Your task to perform on an android device: Search for Mexican restaurants on Maps Image 0: 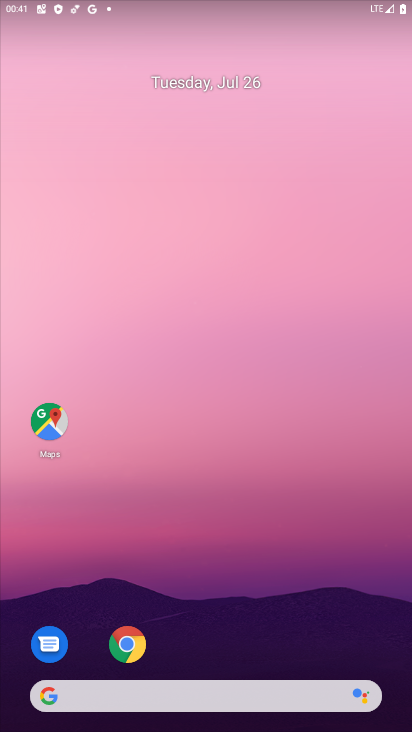
Step 0: click (45, 415)
Your task to perform on an android device: Search for Mexican restaurants on Maps Image 1: 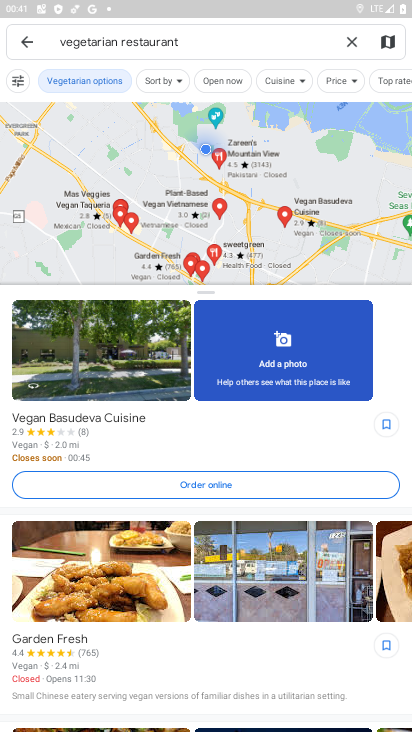
Step 1: click (350, 46)
Your task to perform on an android device: Search for Mexican restaurants on Maps Image 2: 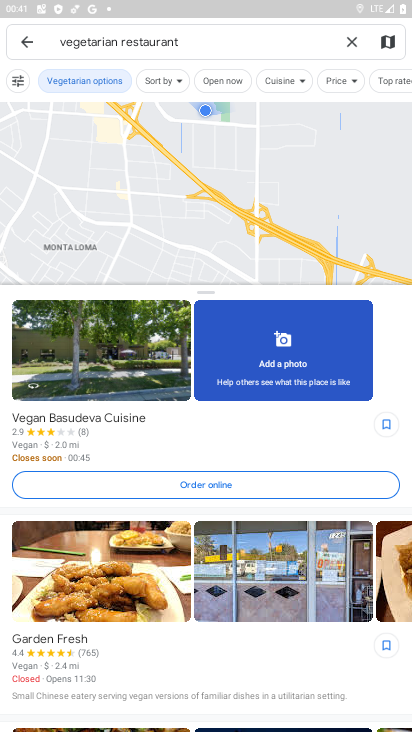
Step 2: click (200, 47)
Your task to perform on an android device: Search for Mexican restaurants on Maps Image 3: 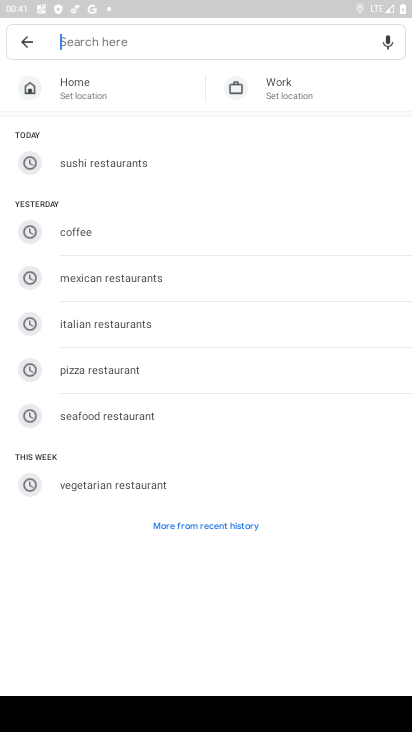
Step 3: type "Mexican restaurants"
Your task to perform on an android device: Search for Mexican restaurants on Maps Image 4: 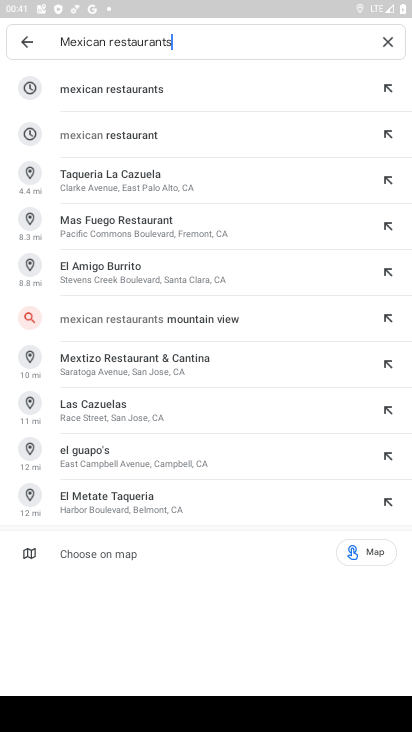
Step 4: click (86, 101)
Your task to perform on an android device: Search for Mexican restaurants on Maps Image 5: 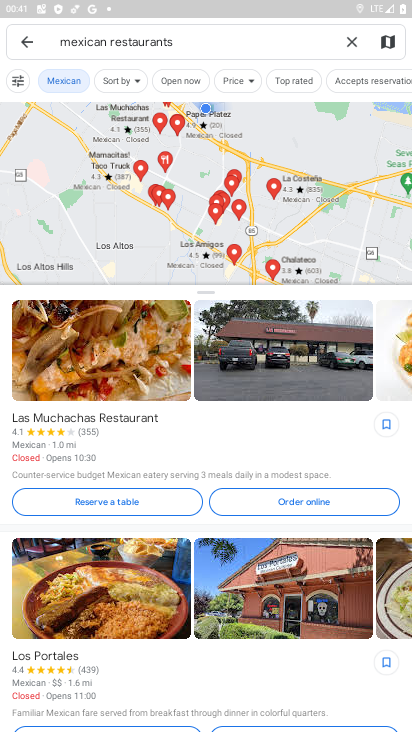
Step 5: task complete